Your task to perform on an android device: see tabs open on other devices in the chrome app Image 0: 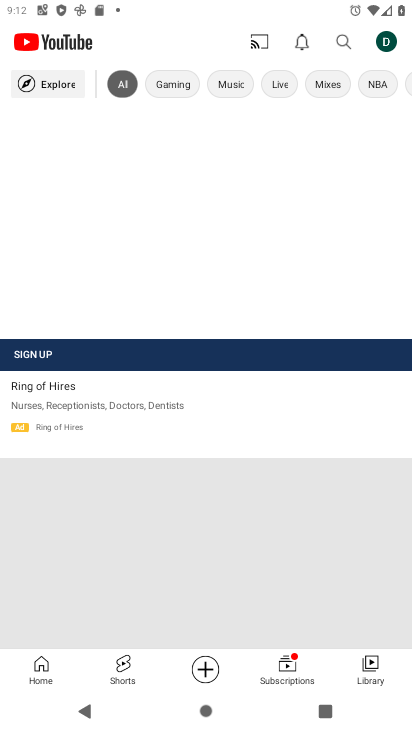
Step 0: drag from (386, 631) to (192, 3)
Your task to perform on an android device: see tabs open on other devices in the chrome app Image 1: 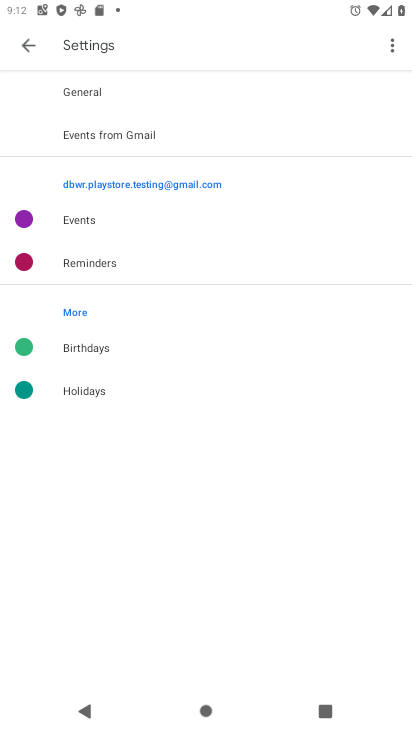
Step 1: press home button
Your task to perform on an android device: see tabs open on other devices in the chrome app Image 2: 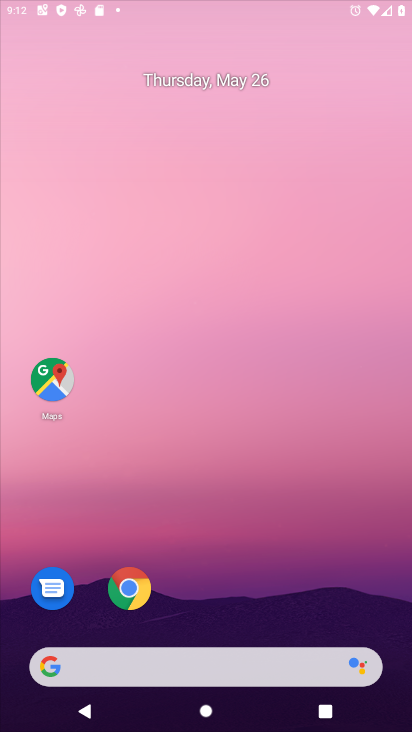
Step 2: drag from (383, 669) to (238, 91)
Your task to perform on an android device: see tabs open on other devices in the chrome app Image 3: 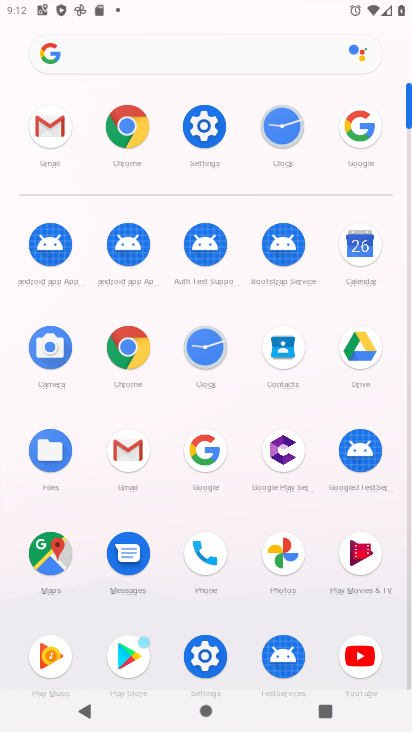
Step 3: click (130, 340)
Your task to perform on an android device: see tabs open on other devices in the chrome app Image 4: 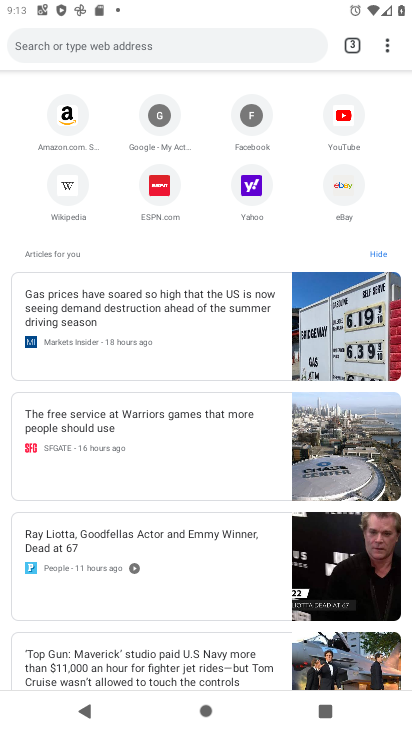
Step 4: task complete